Your task to perform on an android device: turn off improve location accuracy Image 0: 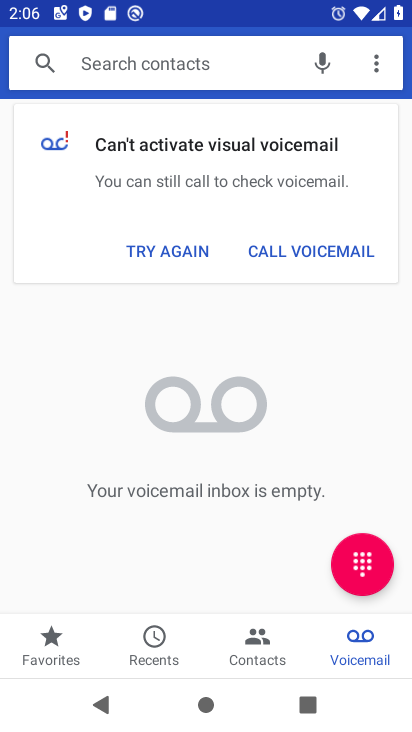
Step 0: press home button
Your task to perform on an android device: turn off improve location accuracy Image 1: 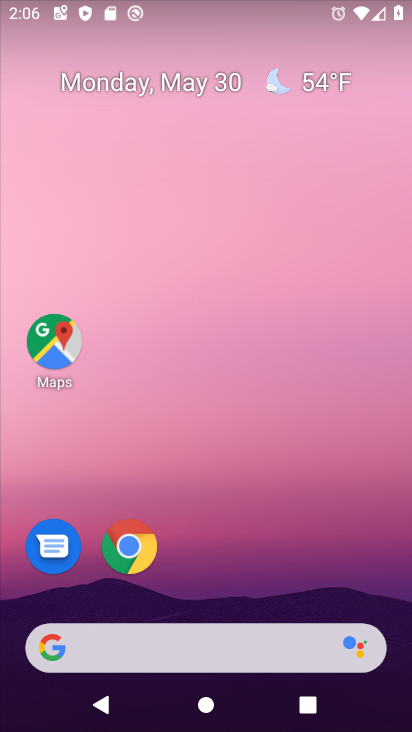
Step 1: drag from (220, 598) to (263, 37)
Your task to perform on an android device: turn off improve location accuracy Image 2: 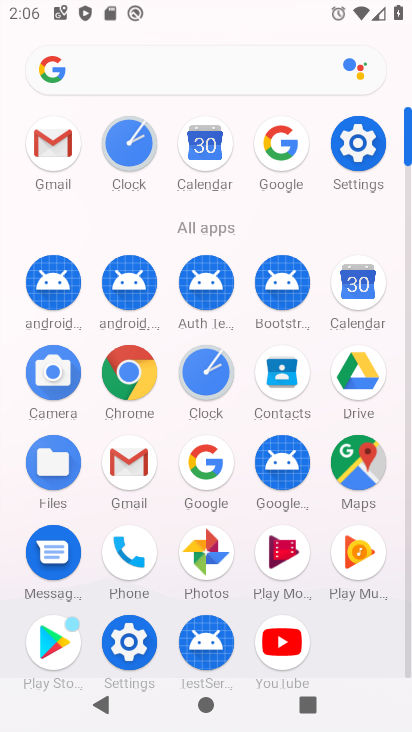
Step 2: click (356, 140)
Your task to perform on an android device: turn off improve location accuracy Image 3: 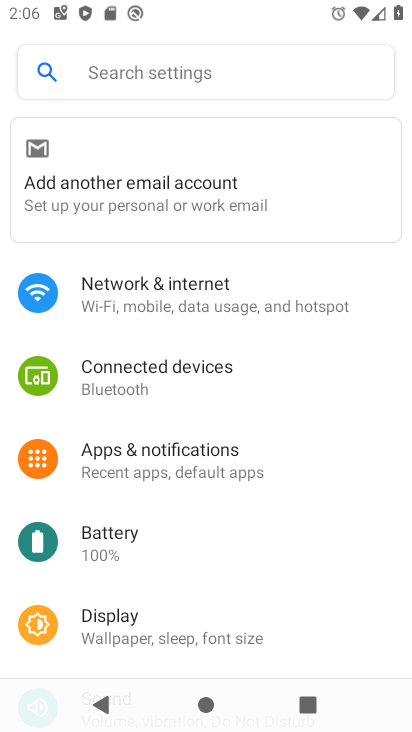
Step 3: drag from (203, 638) to (245, 129)
Your task to perform on an android device: turn off improve location accuracy Image 4: 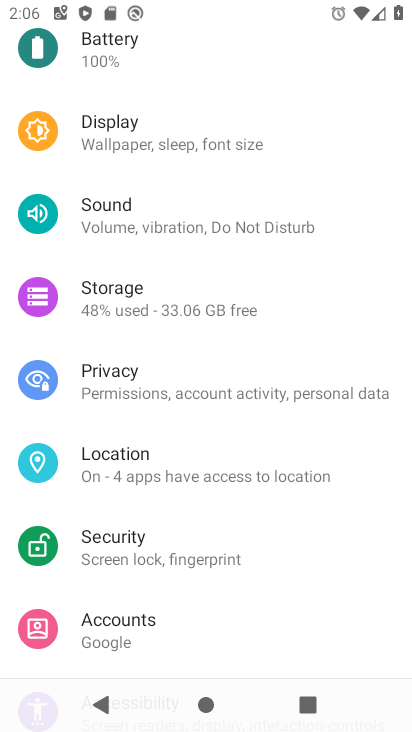
Step 4: click (161, 458)
Your task to perform on an android device: turn off improve location accuracy Image 5: 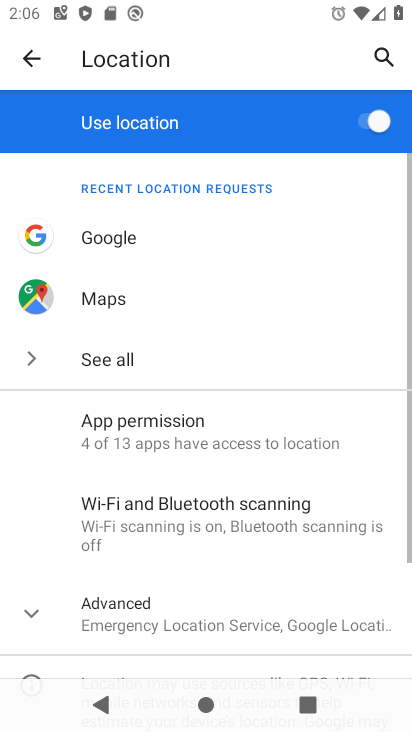
Step 5: click (27, 611)
Your task to perform on an android device: turn off improve location accuracy Image 6: 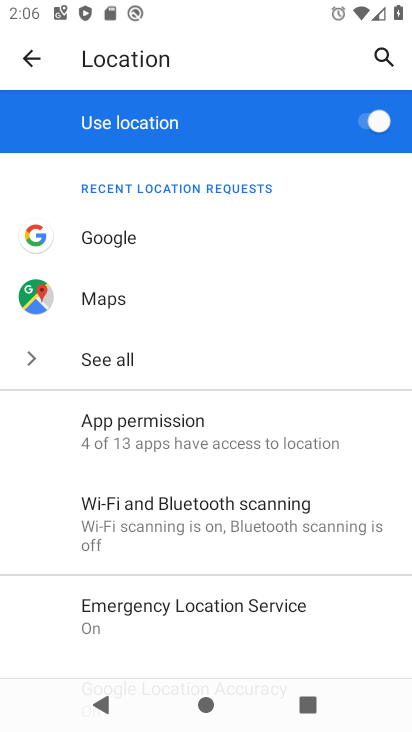
Step 6: drag from (210, 561) to (250, 284)
Your task to perform on an android device: turn off improve location accuracy Image 7: 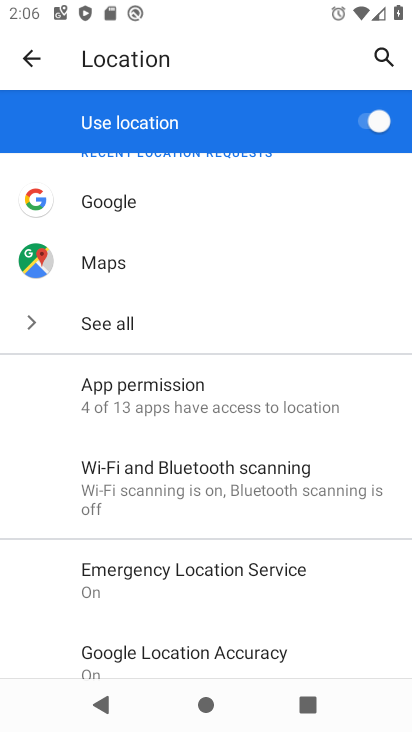
Step 7: click (232, 651)
Your task to perform on an android device: turn off improve location accuracy Image 8: 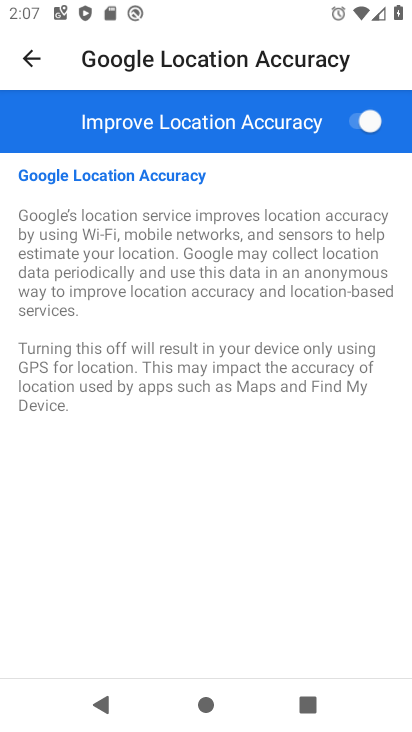
Step 8: click (358, 121)
Your task to perform on an android device: turn off improve location accuracy Image 9: 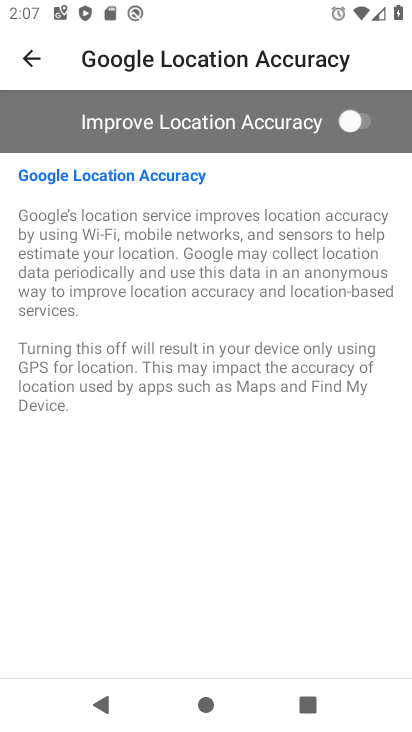
Step 9: task complete